Your task to perform on an android device: check storage Image 0: 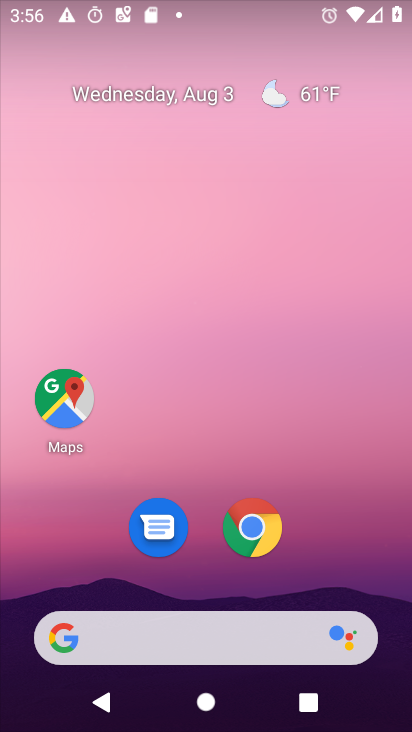
Step 0: drag from (338, 528) to (362, 43)
Your task to perform on an android device: check storage Image 1: 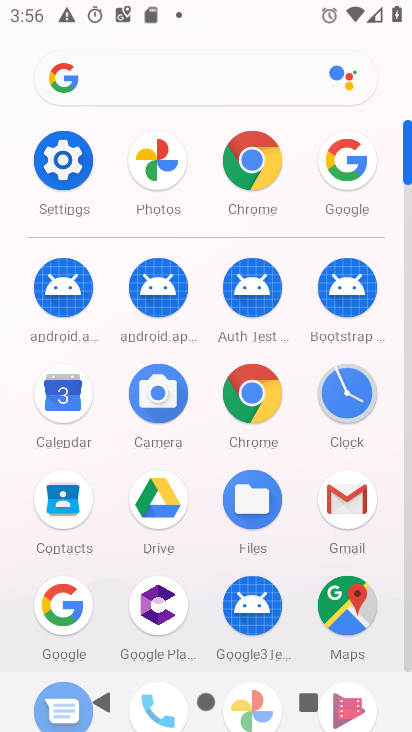
Step 1: click (54, 143)
Your task to perform on an android device: check storage Image 2: 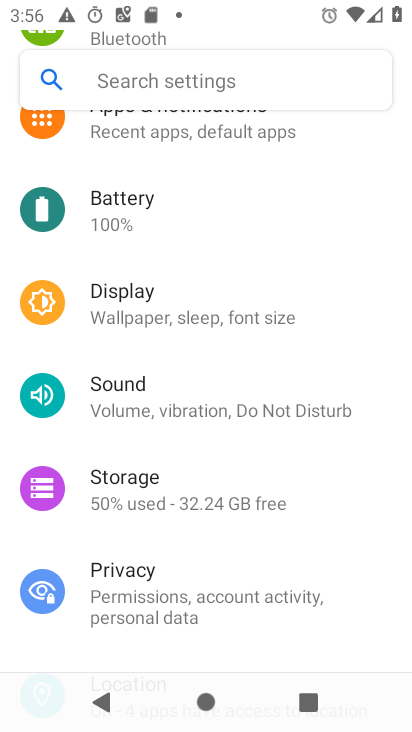
Step 2: click (131, 482)
Your task to perform on an android device: check storage Image 3: 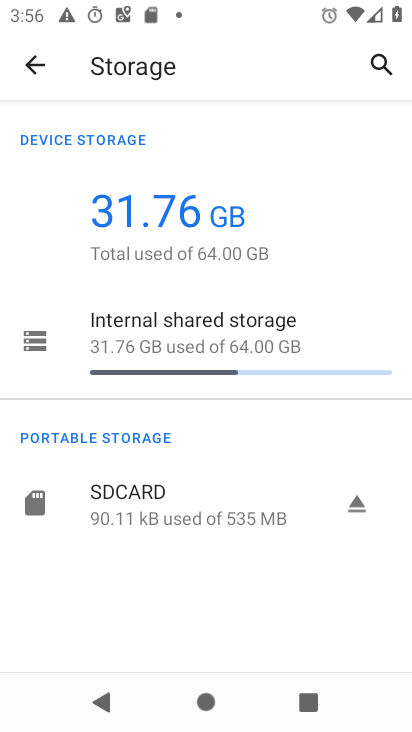
Step 3: task complete